Your task to perform on an android device: Add "razer blade" to the cart on newegg, then select checkout. Image 0: 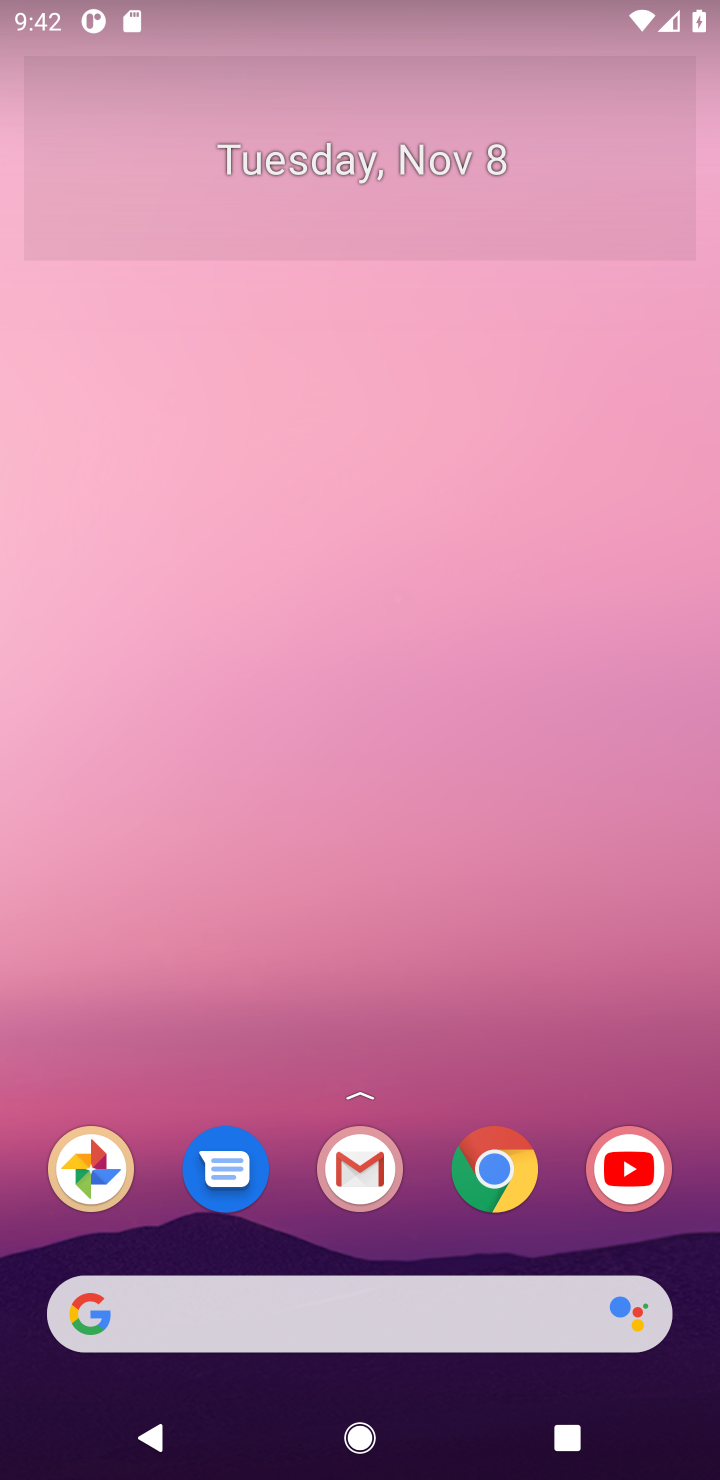
Step 0: click (505, 1182)
Your task to perform on an android device: Add "razer blade" to the cart on newegg, then select checkout. Image 1: 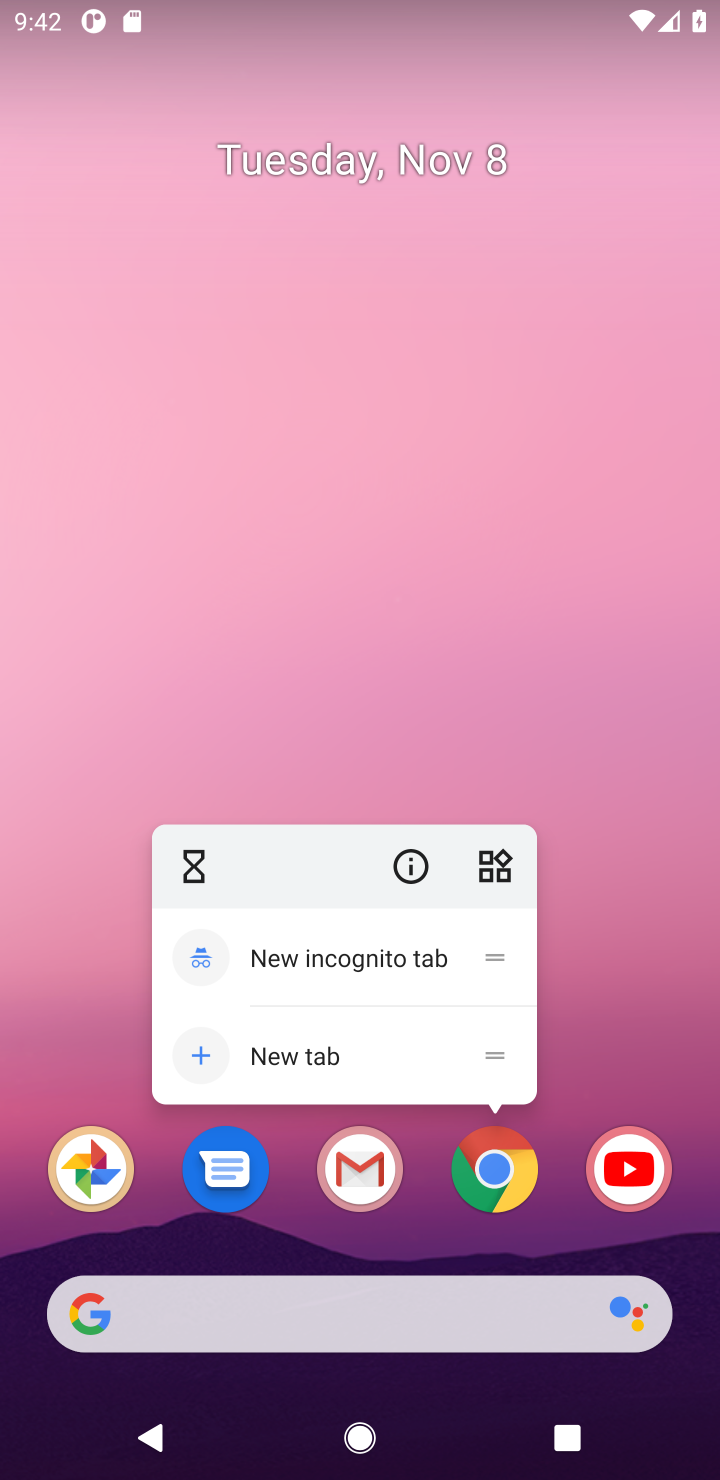
Step 1: click (501, 1189)
Your task to perform on an android device: Add "razer blade" to the cart on newegg, then select checkout. Image 2: 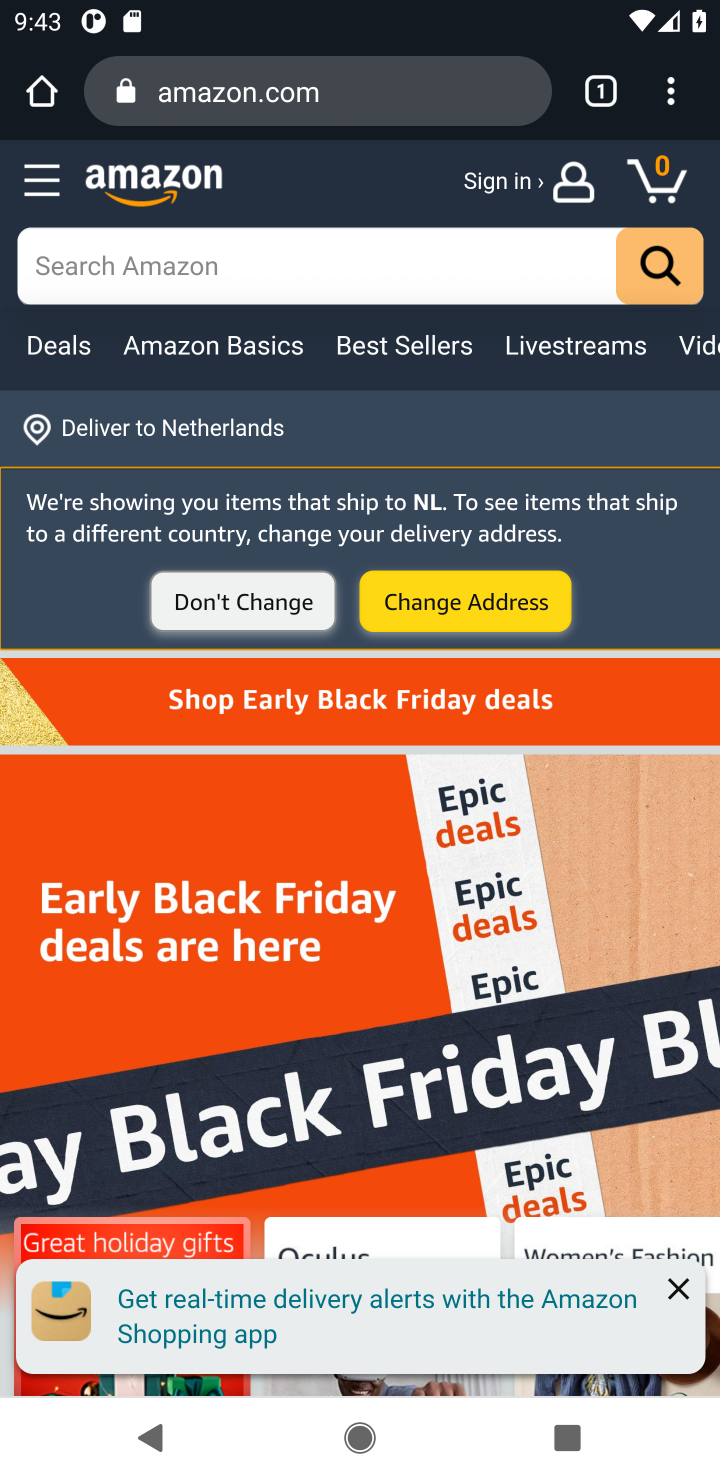
Step 2: click (404, 103)
Your task to perform on an android device: Add "razer blade" to the cart on newegg, then select checkout. Image 3: 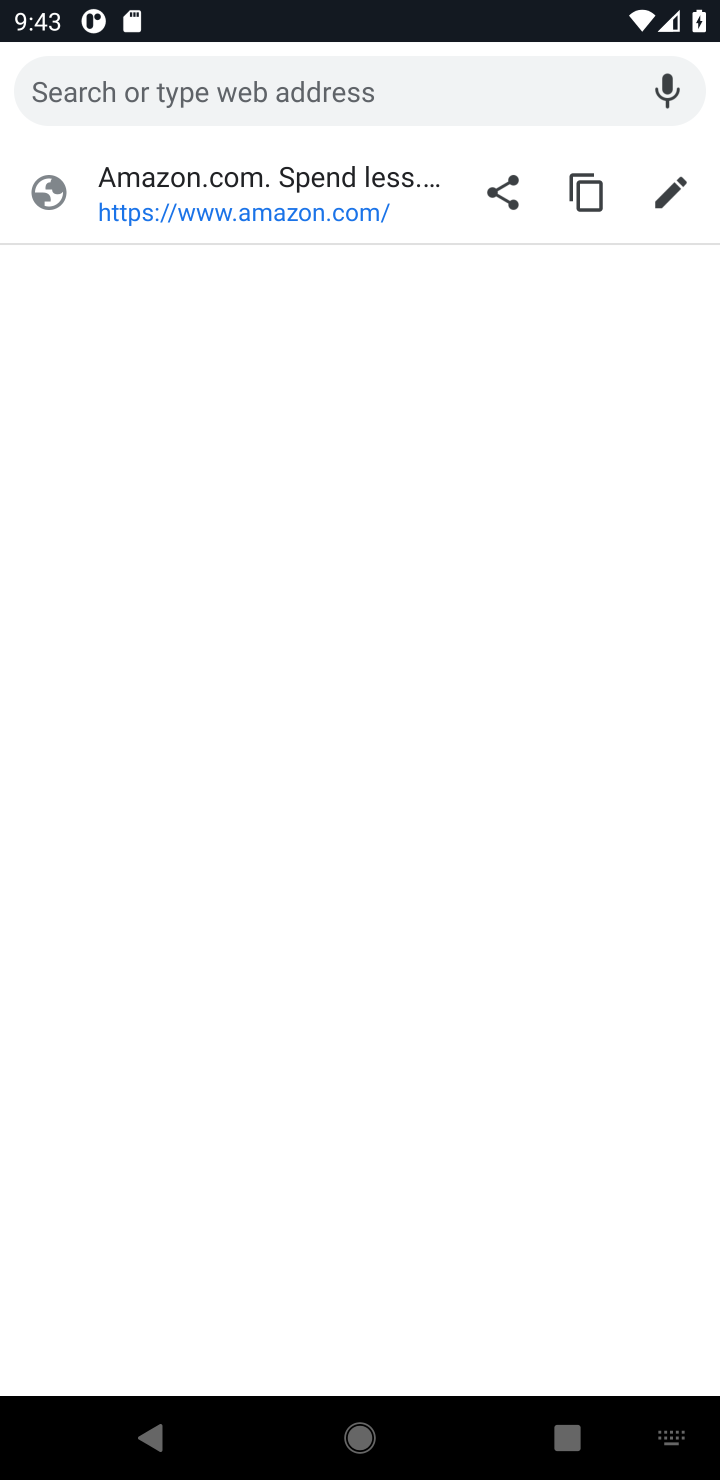
Step 3: type "newegg"
Your task to perform on an android device: Add "razer blade" to the cart on newegg, then select checkout. Image 4: 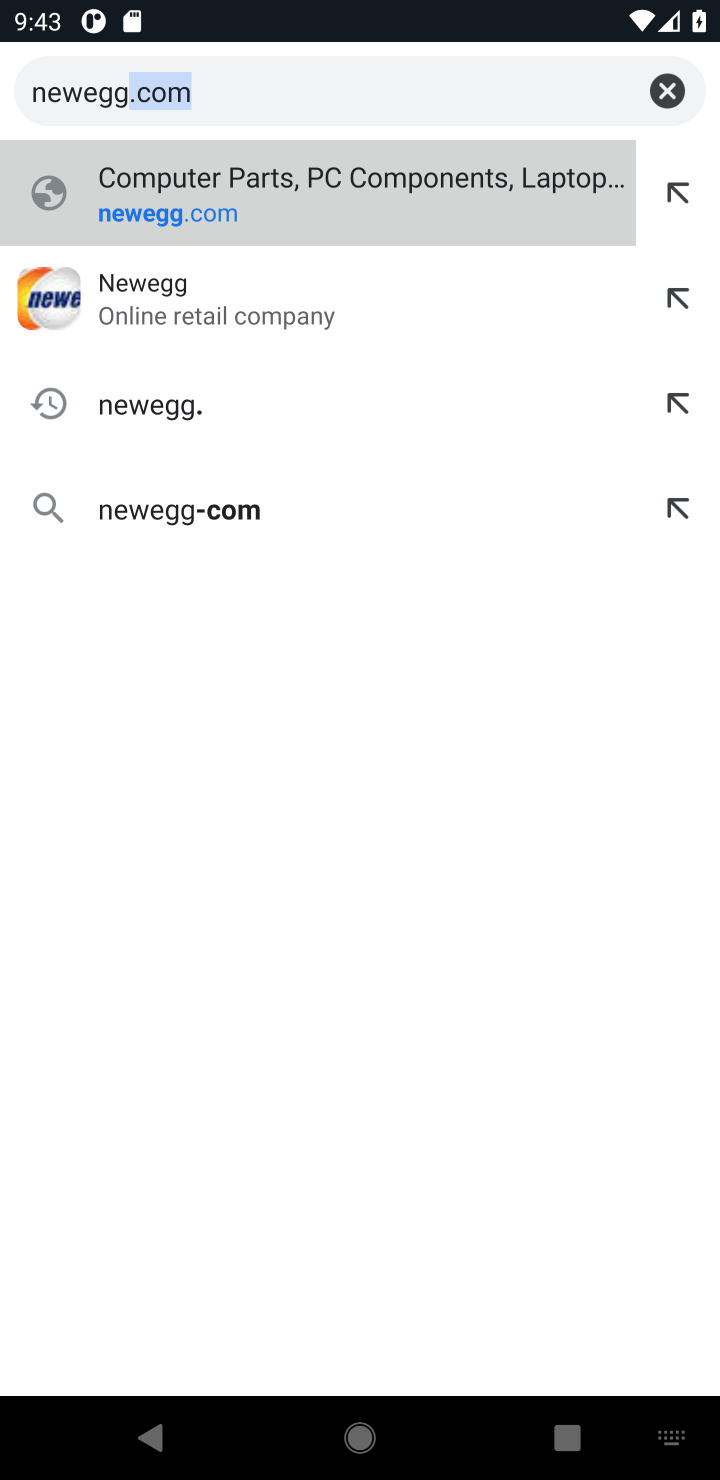
Step 4: press enter
Your task to perform on an android device: Add "razer blade" to the cart on newegg, then select checkout. Image 5: 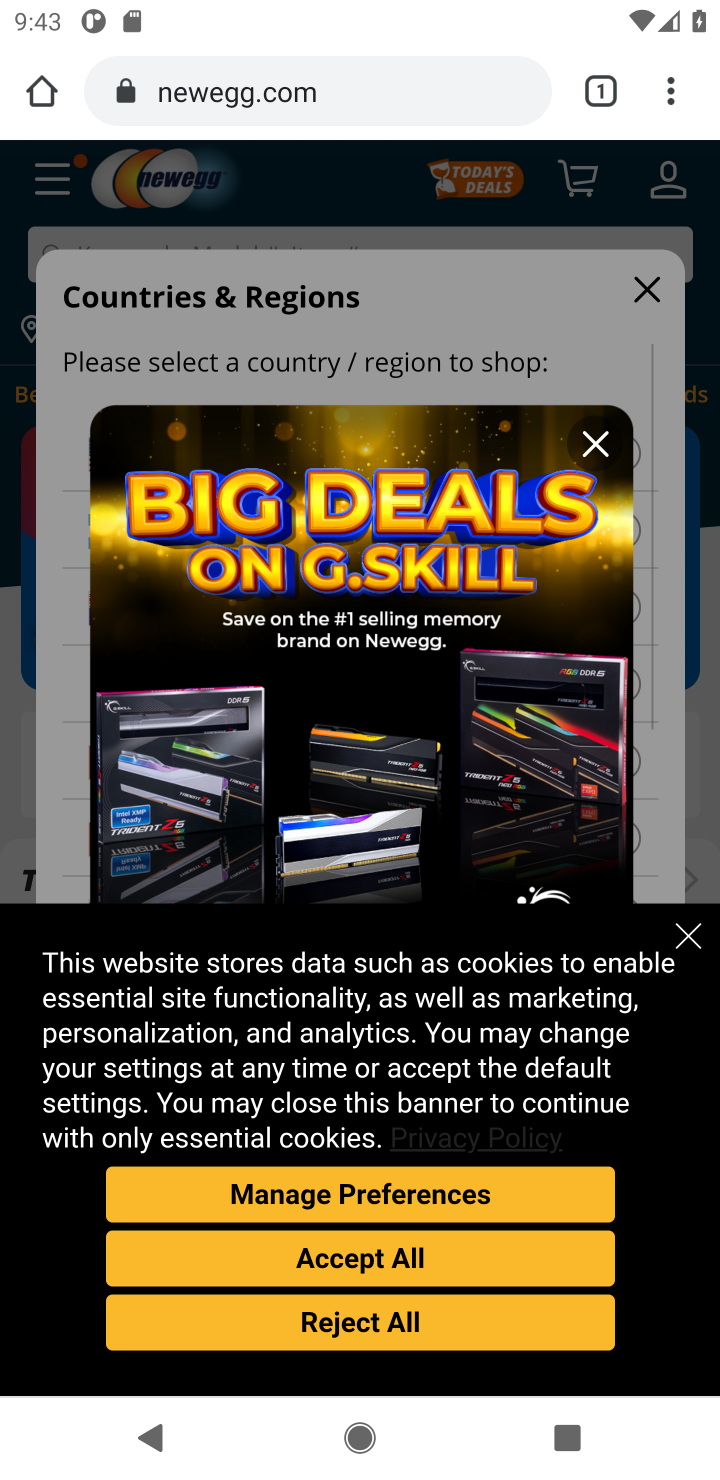
Step 5: click (388, 1261)
Your task to perform on an android device: Add "razer blade" to the cart on newegg, then select checkout. Image 6: 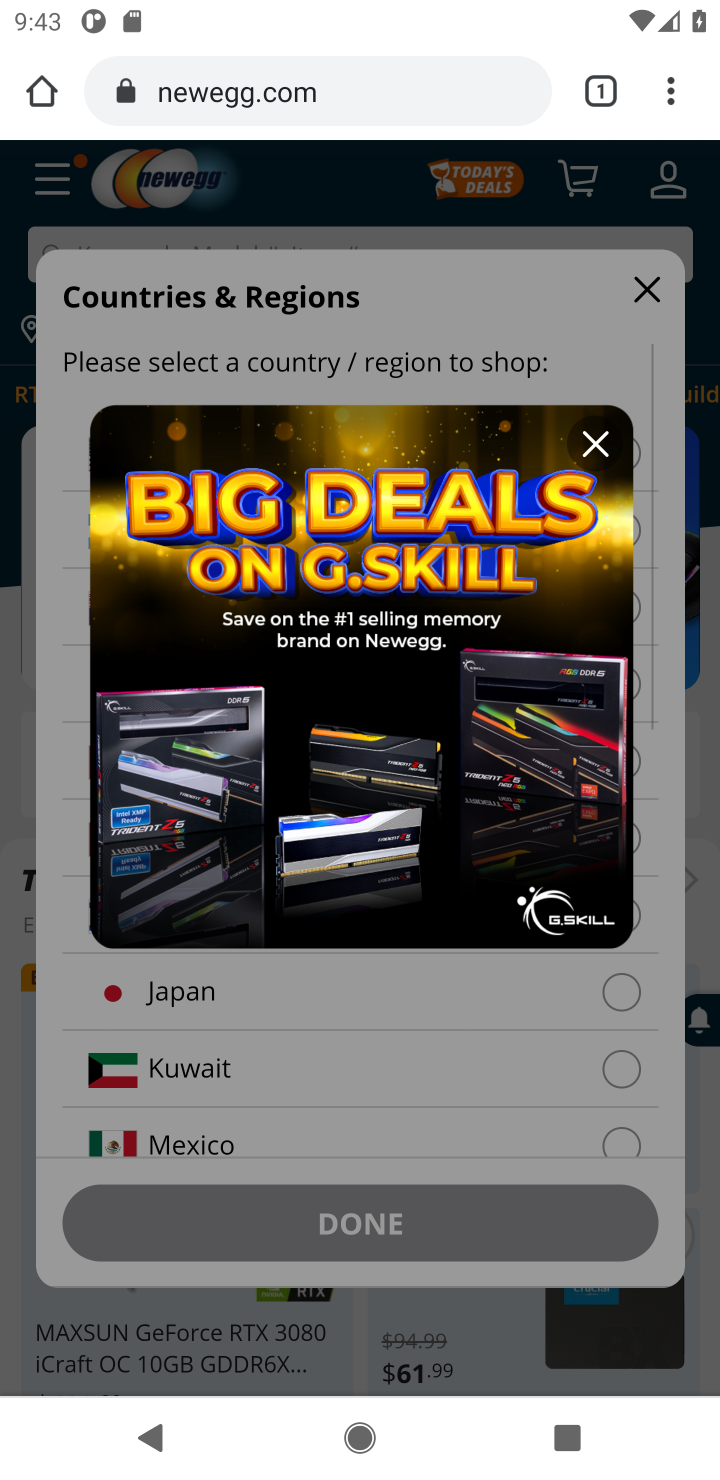
Step 6: click (649, 292)
Your task to perform on an android device: Add "razer blade" to the cart on newegg, then select checkout. Image 7: 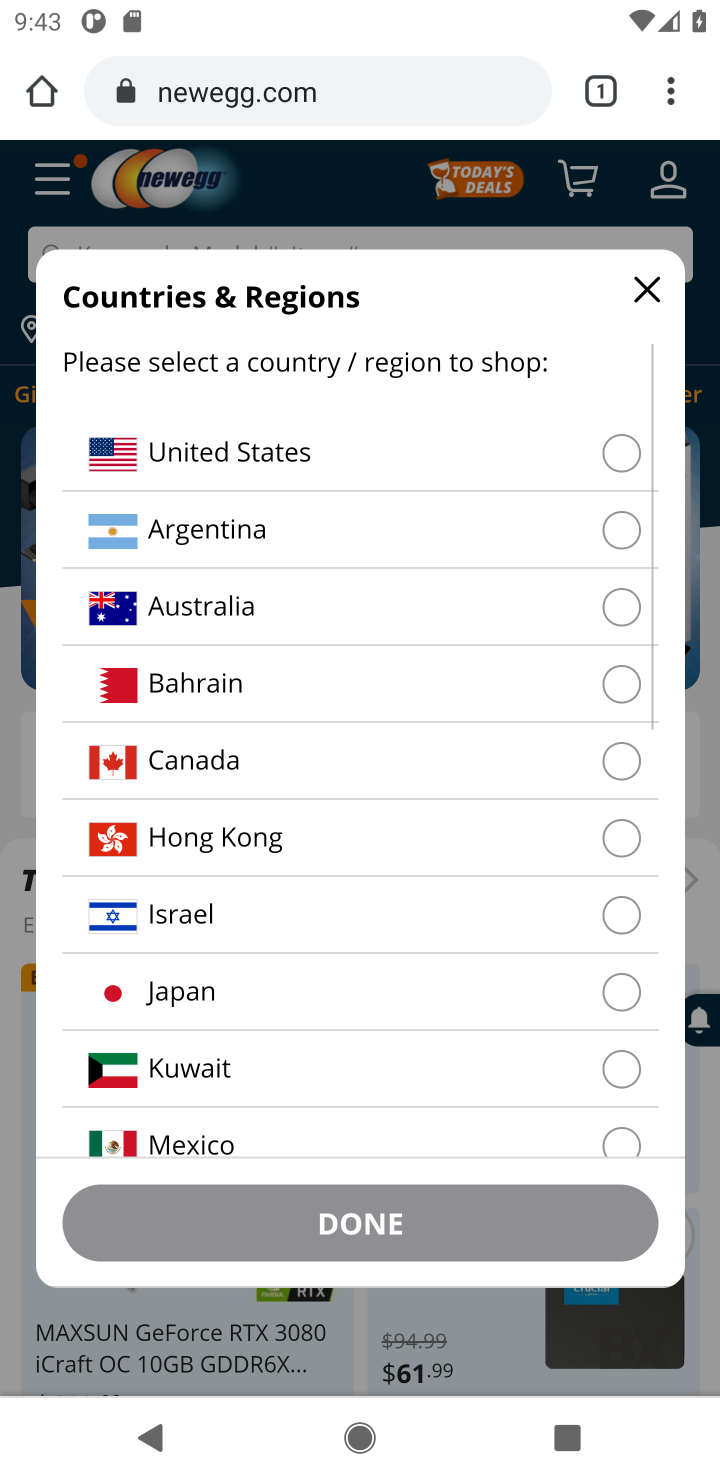
Step 7: click (622, 460)
Your task to perform on an android device: Add "razer blade" to the cart on newegg, then select checkout. Image 8: 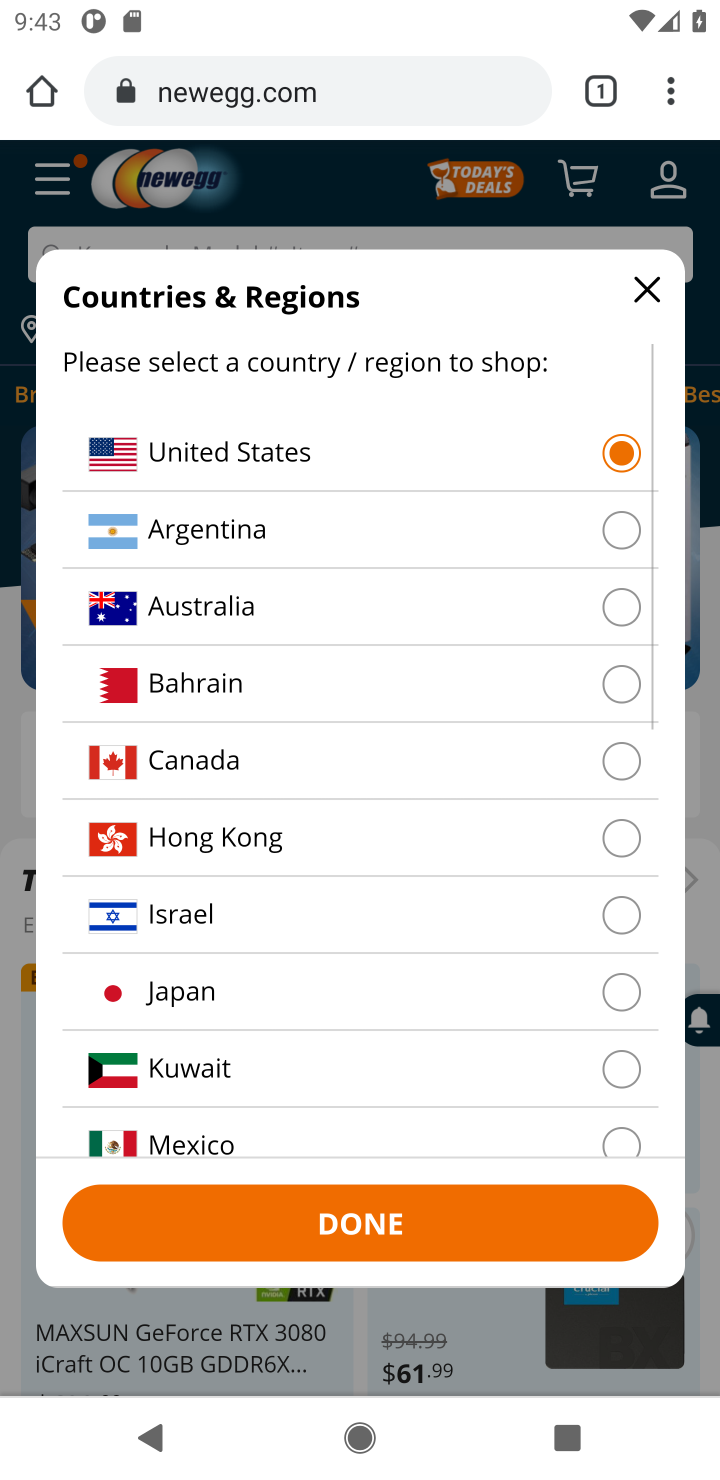
Step 8: click (359, 1217)
Your task to perform on an android device: Add "razer blade" to the cart on newegg, then select checkout. Image 9: 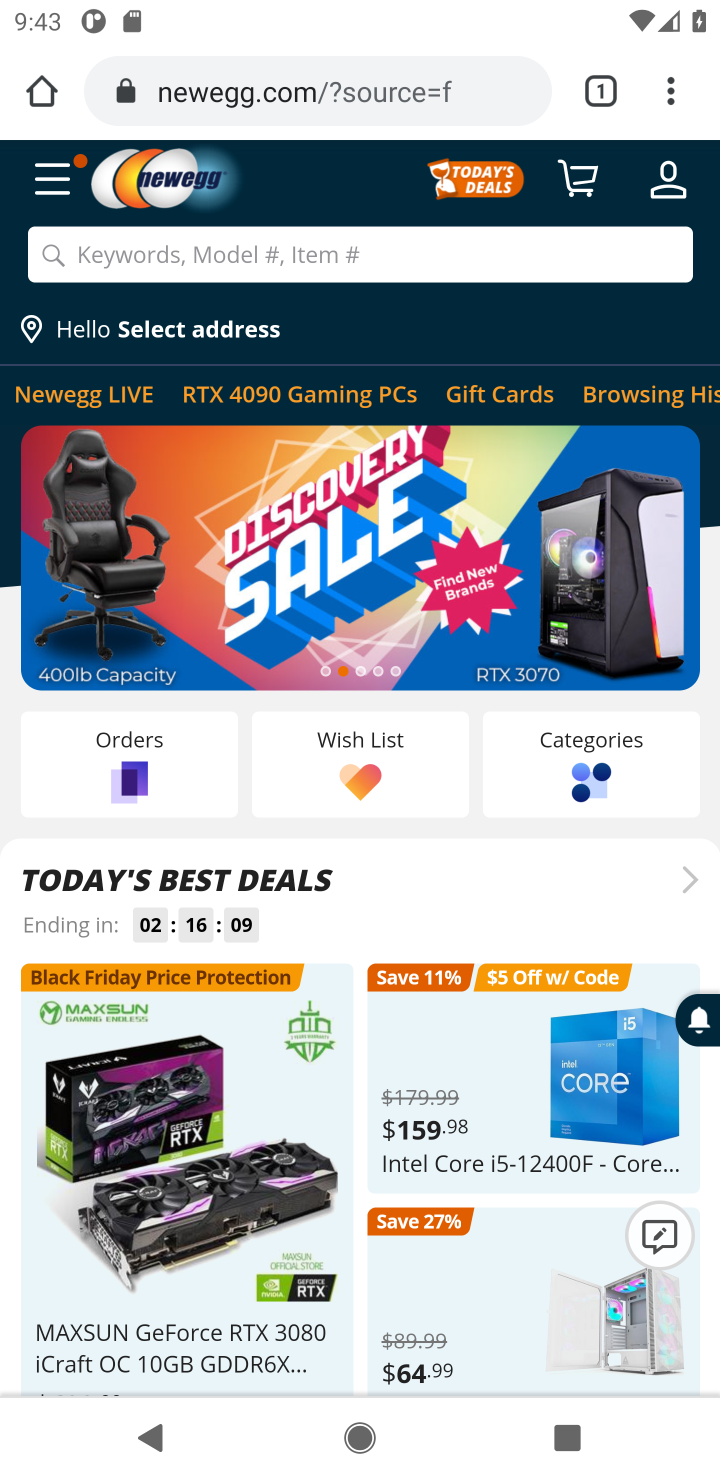
Step 9: click (312, 249)
Your task to perform on an android device: Add "razer blade" to the cart on newegg, then select checkout. Image 10: 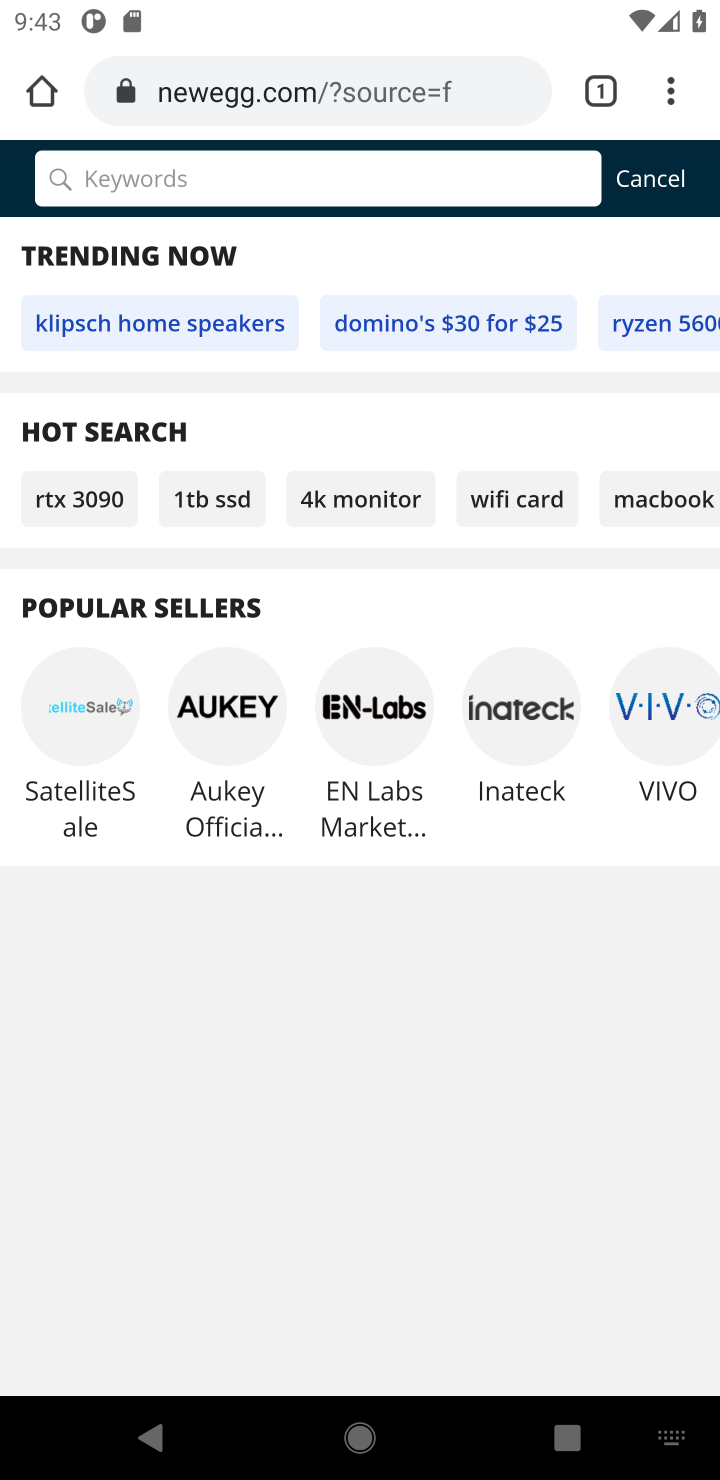
Step 10: type "razer blade"
Your task to perform on an android device: Add "razer blade" to the cart on newegg, then select checkout. Image 11: 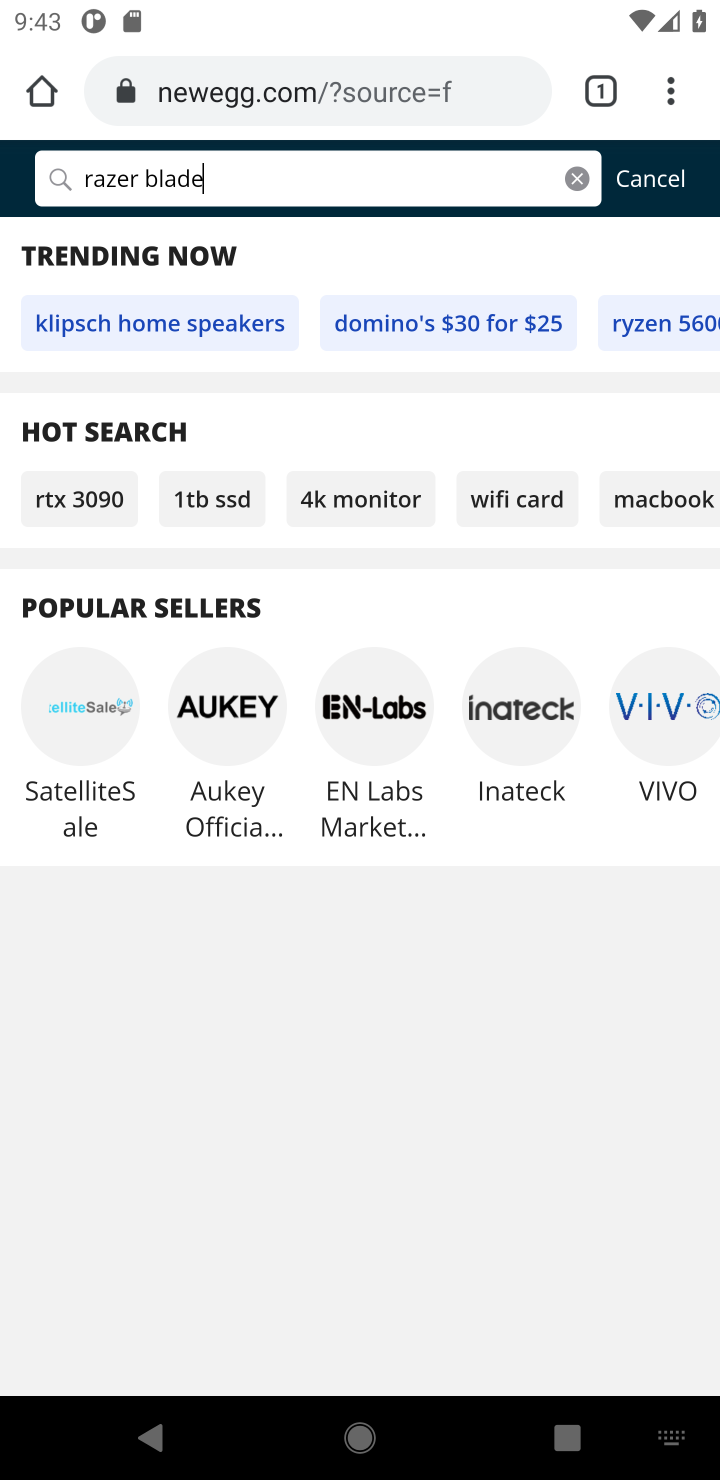
Step 11: press enter
Your task to perform on an android device: Add "razer blade" to the cart on newegg, then select checkout. Image 12: 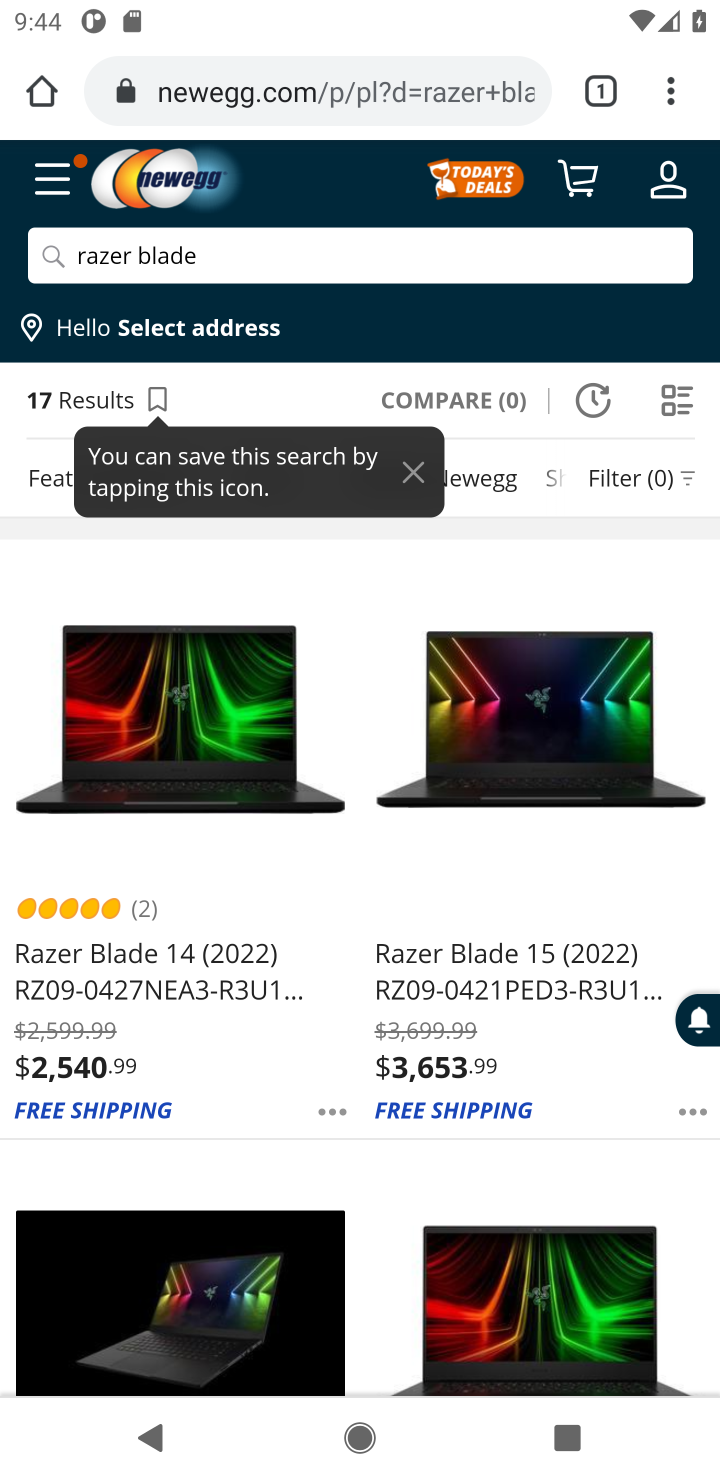
Step 12: click (181, 707)
Your task to perform on an android device: Add "razer blade" to the cart on newegg, then select checkout. Image 13: 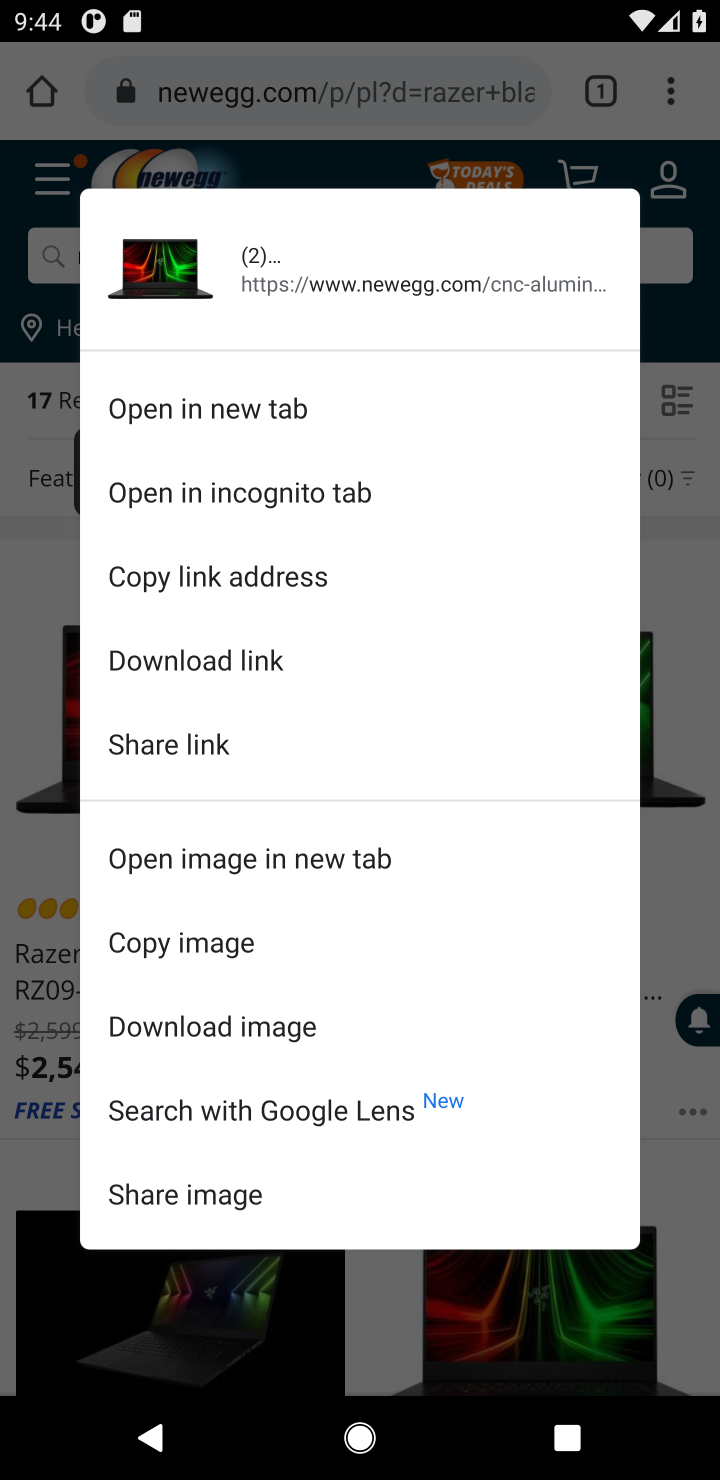
Step 13: click (671, 503)
Your task to perform on an android device: Add "razer blade" to the cart on newegg, then select checkout. Image 14: 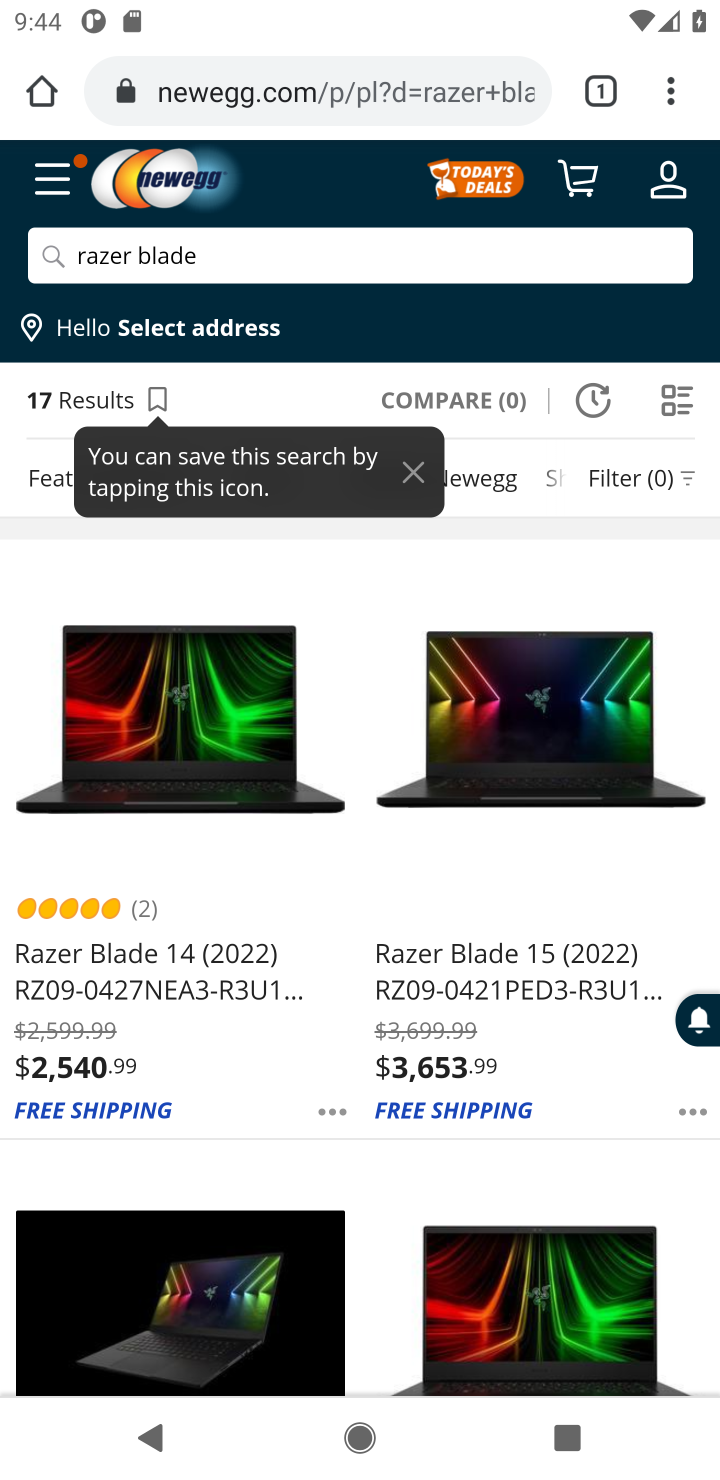
Step 14: click (122, 725)
Your task to perform on an android device: Add "razer blade" to the cart on newegg, then select checkout. Image 15: 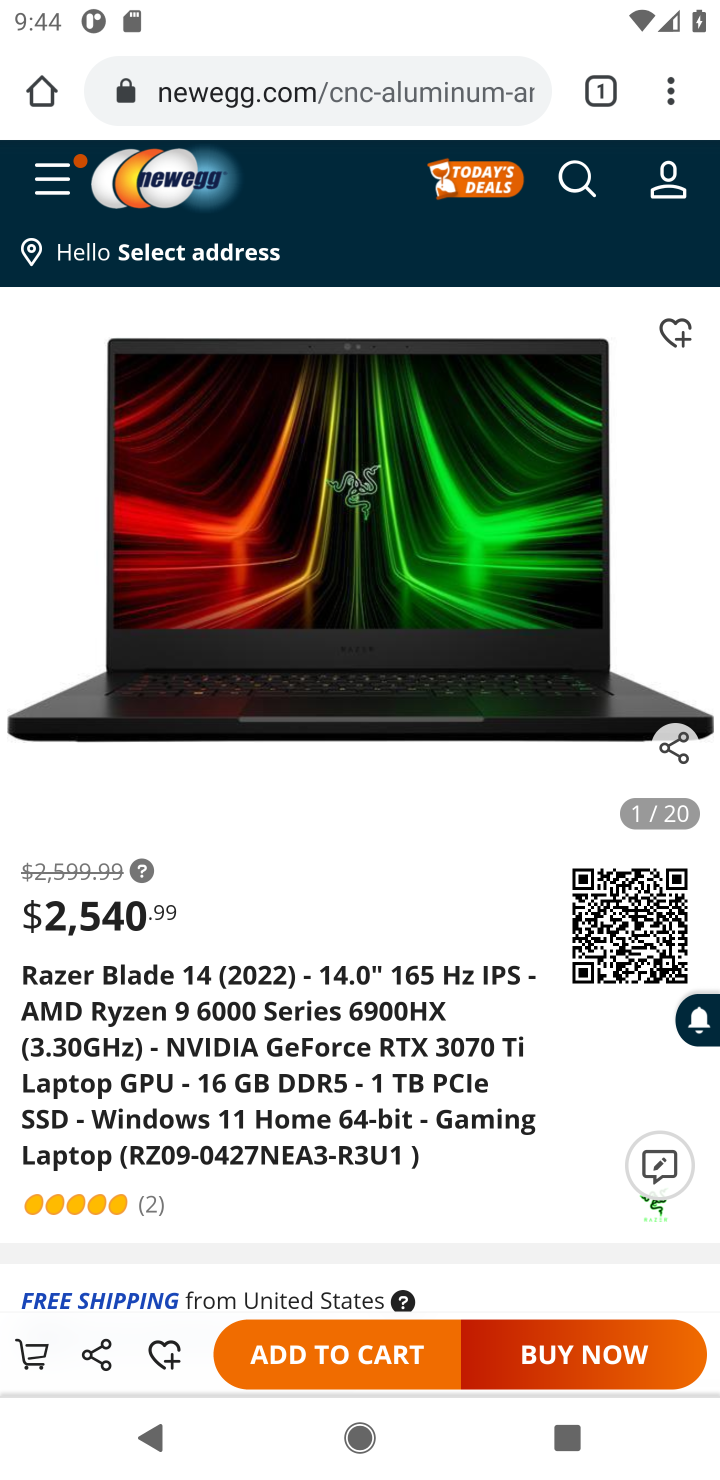
Step 15: click (378, 1347)
Your task to perform on an android device: Add "razer blade" to the cart on newegg, then select checkout. Image 16: 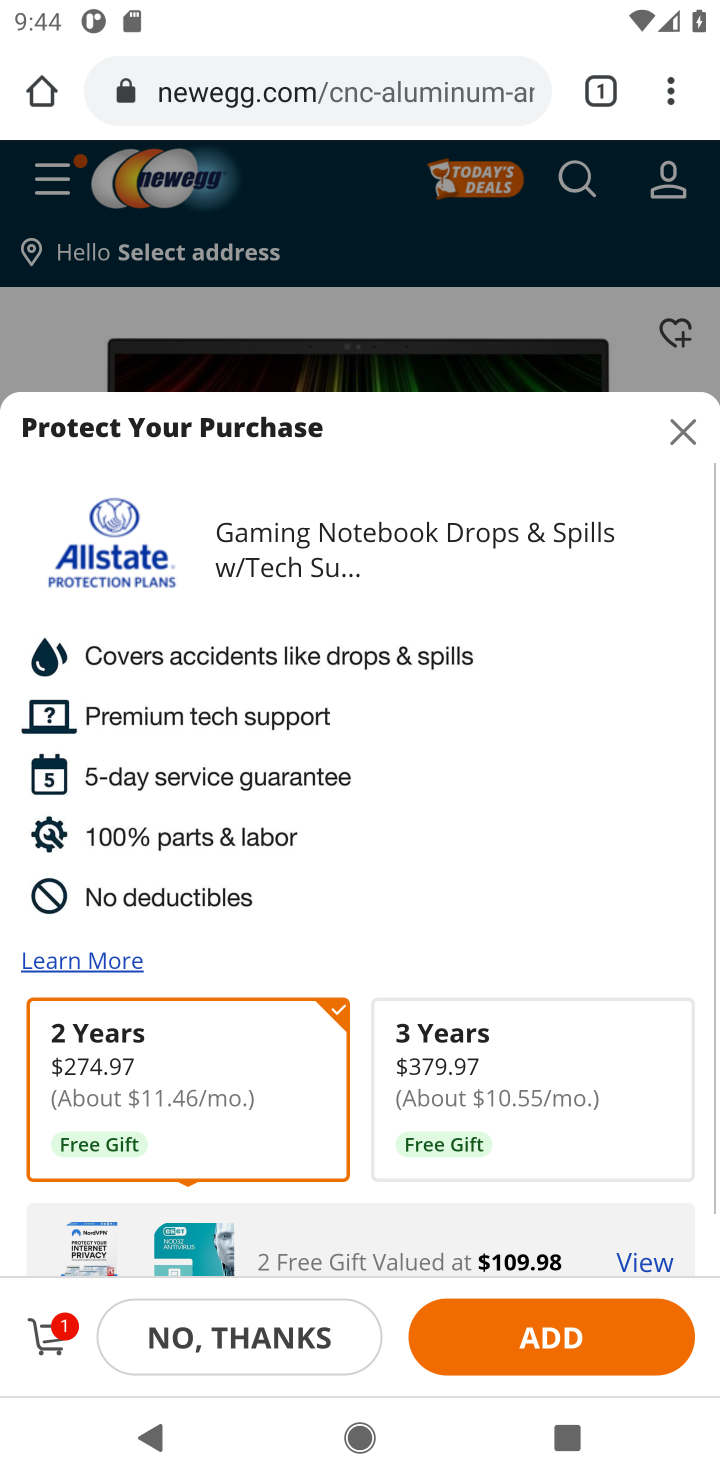
Step 16: click (676, 423)
Your task to perform on an android device: Add "razer blade" to the cart on newegg, then select checkout. Image 17: 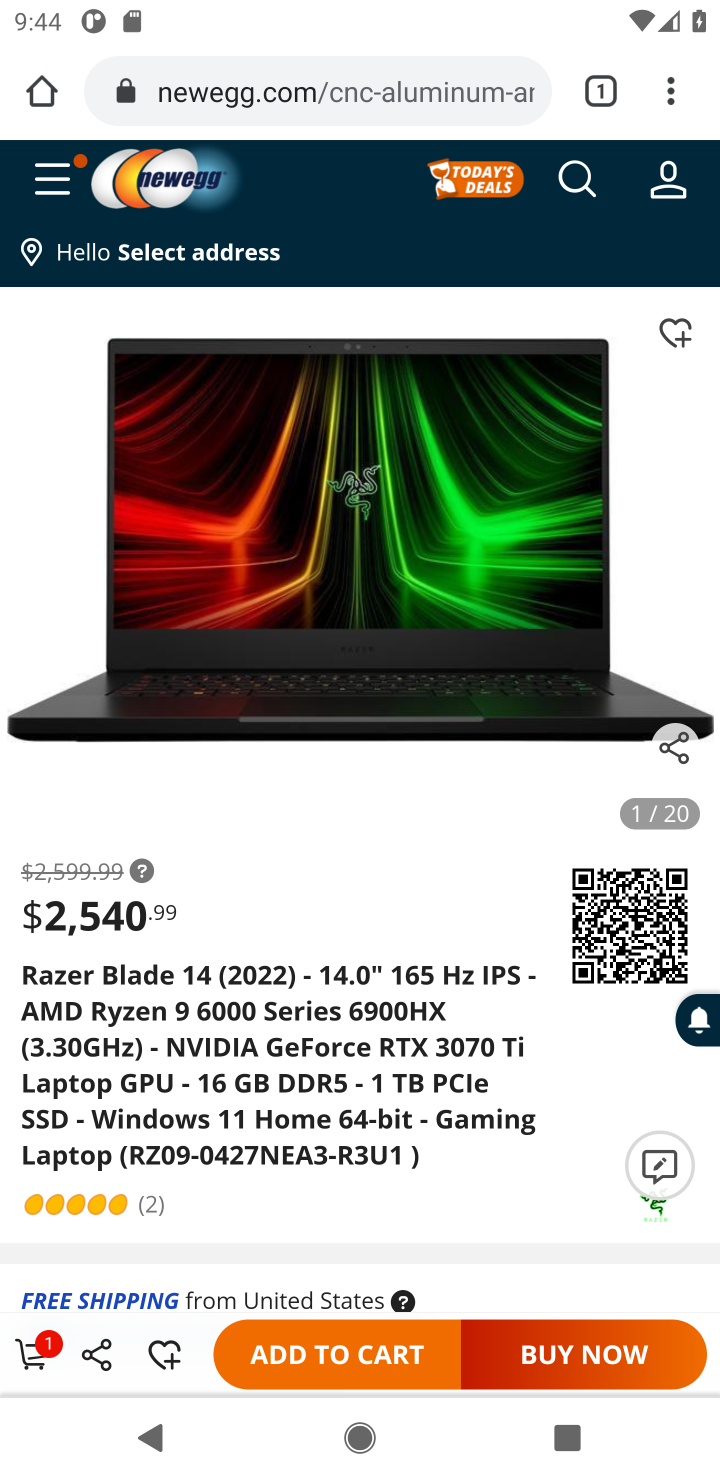
Step 17: click (31, 1363)
Your task to perform on an android device: Add "razer blade" to the cart on newegg, then select checkout. Image 18: 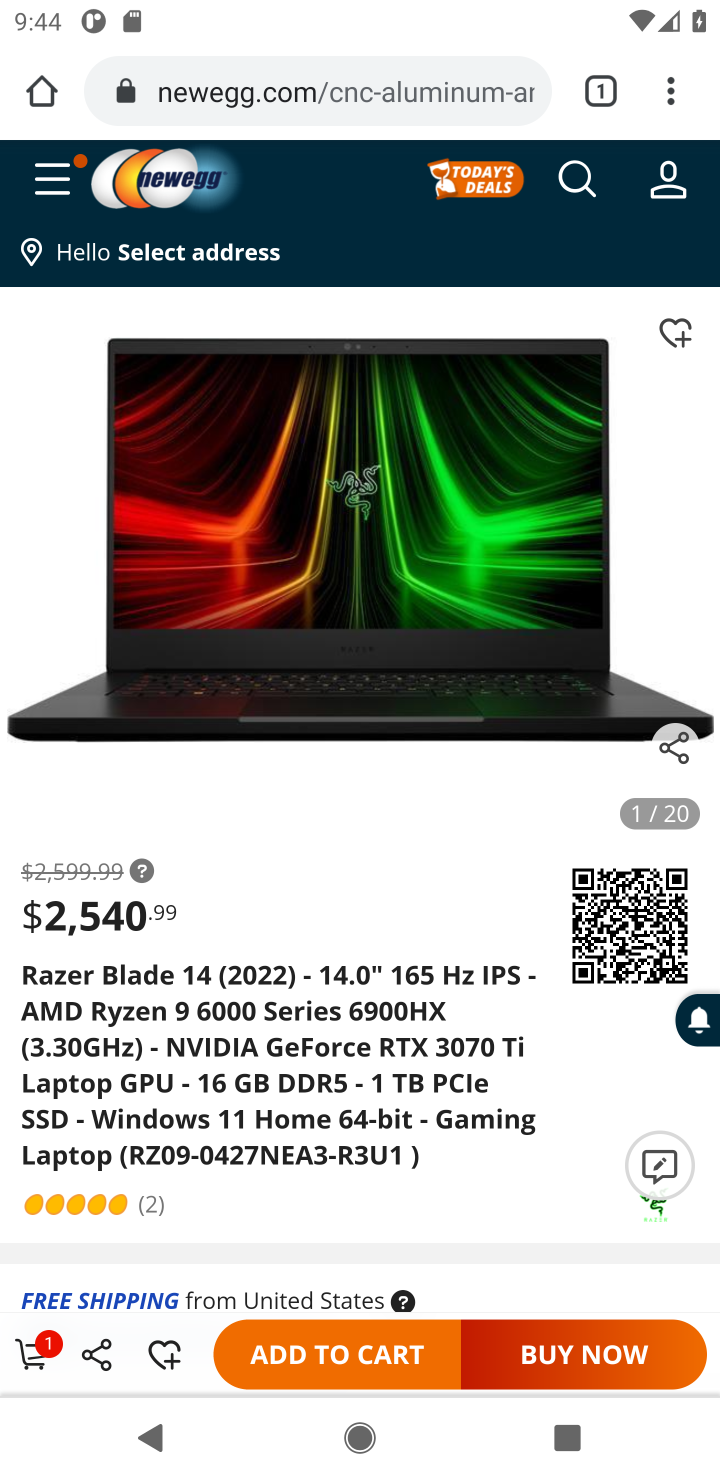
Step 18: click (34, 1354)
Your task to perform on an android device: Add "razer blade" to the cart on newegg, then select checkout. Image 19: 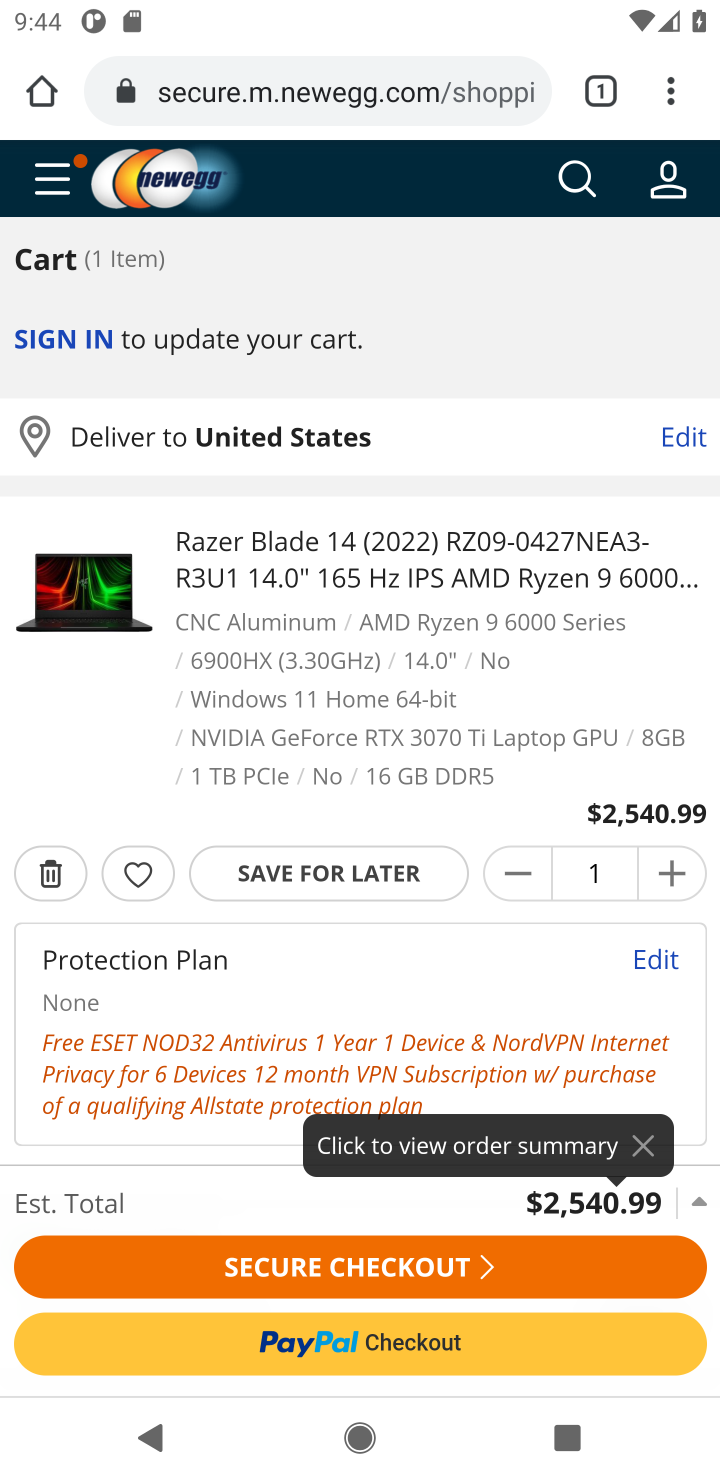
Step 19: click (394, 1262)
Your task to perform on an android device: Add "razer blade" to the cart on newegg, then select checkout. Image 20: 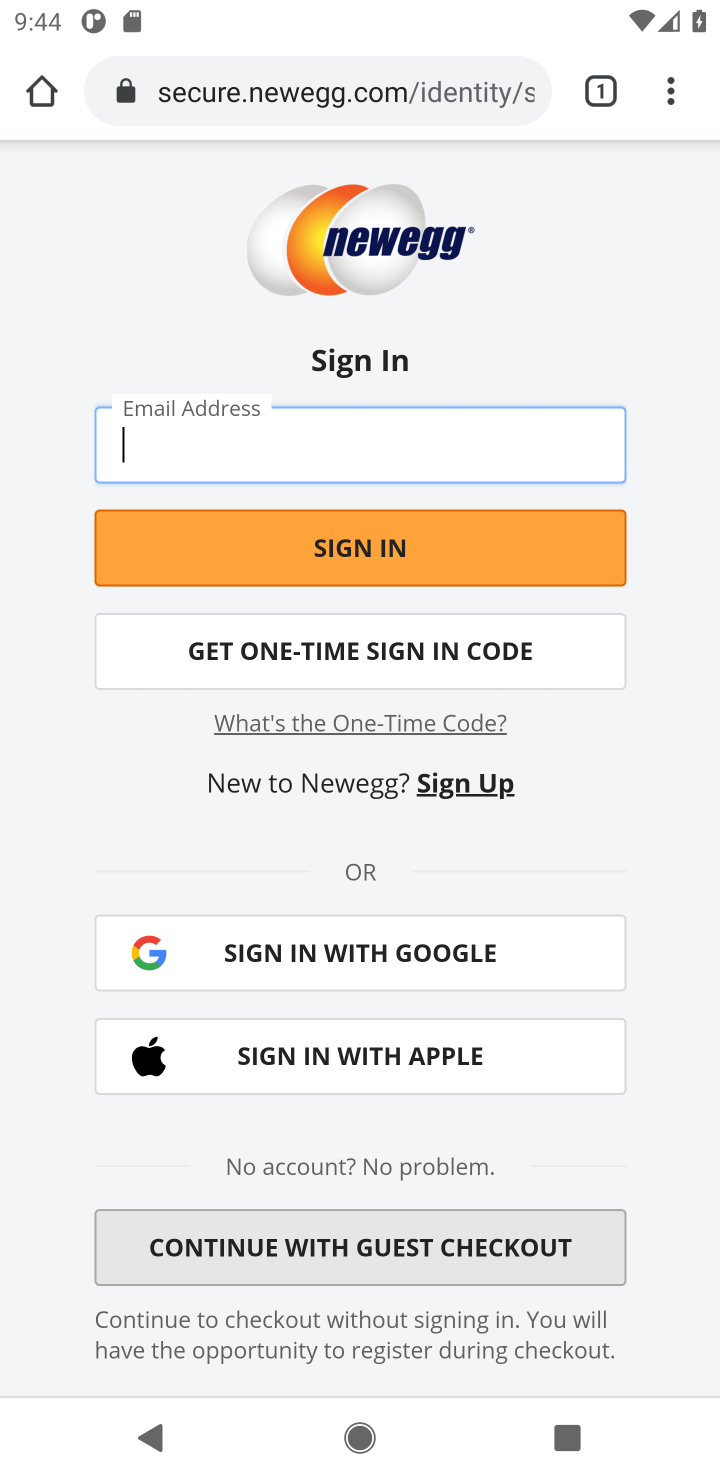
Step 20: task complete